Your task to perform on an android device: open chrome privacy settings Image 0: 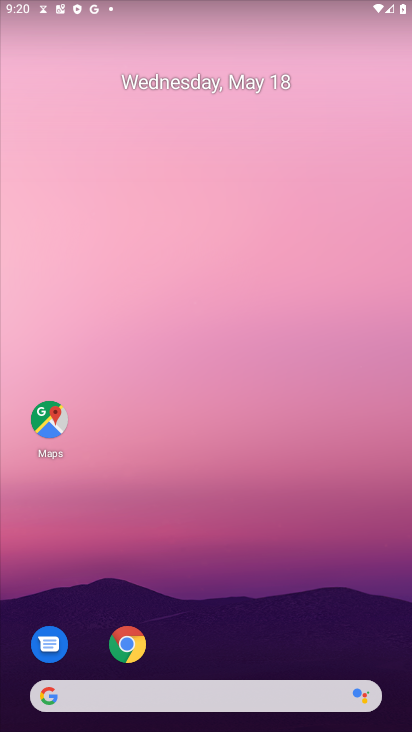
Step 0: click (126, 644)
Your task to perform on an android device: open chrome privacy settings Image 1: 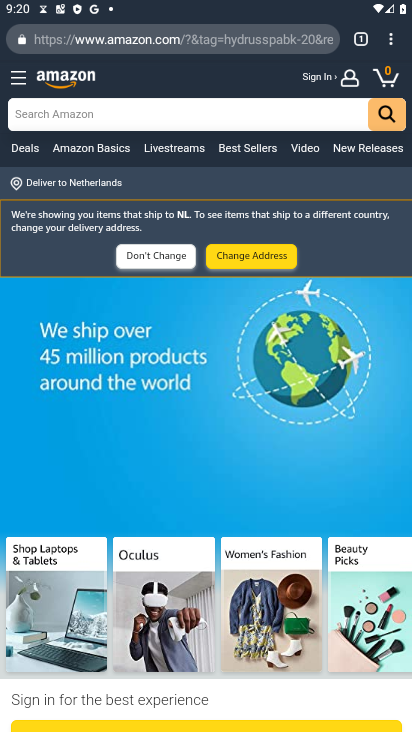
Step 1: click (392, 38)
Your task to perform on an android device: open chrome privacy settings Image 2: 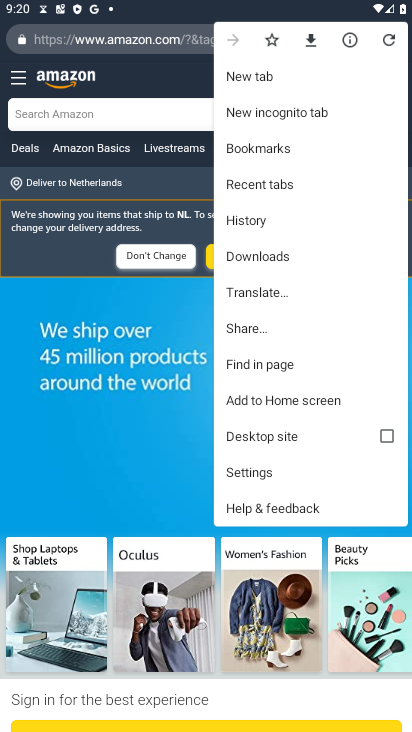
Step 2: click (252, 471)
Your task to perform on an android device: open chrome privacy settings Image 3: 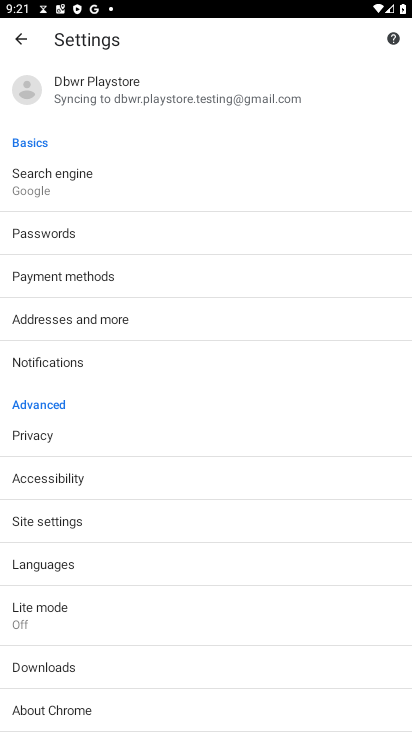
Step 3: click (43, 435)
Your task to perform on an android device: open chrome privacy settings Image 4: 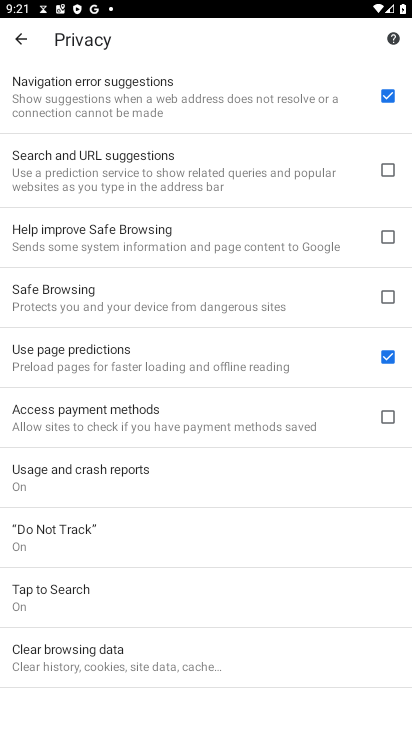
Step 4: task complete